Your task to perform on an android device: allow cookies in the chrome app Image 0: 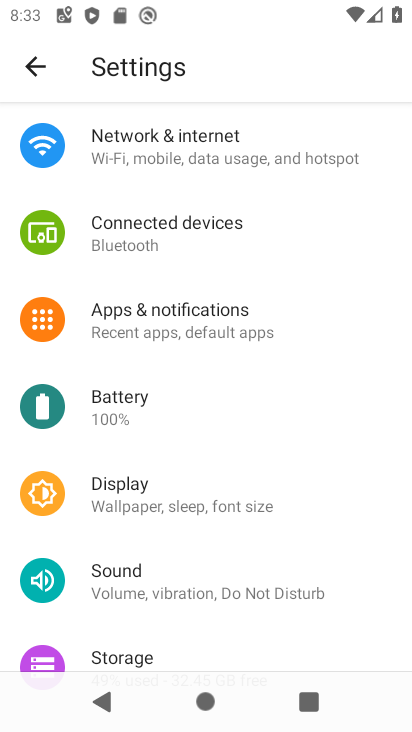
Step 0: press home button
Your task to perform on an android device: allow cookies in the chrome app Image 1: 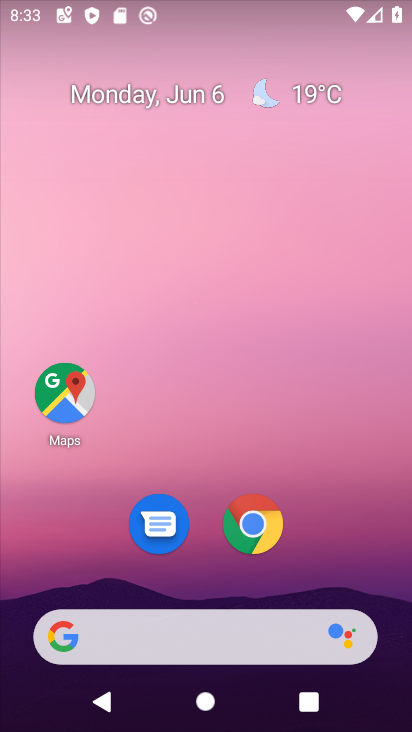
Step 1: click (245, 547)
Your task to perform on an android device: allow cookies in the chrome app Image 2: 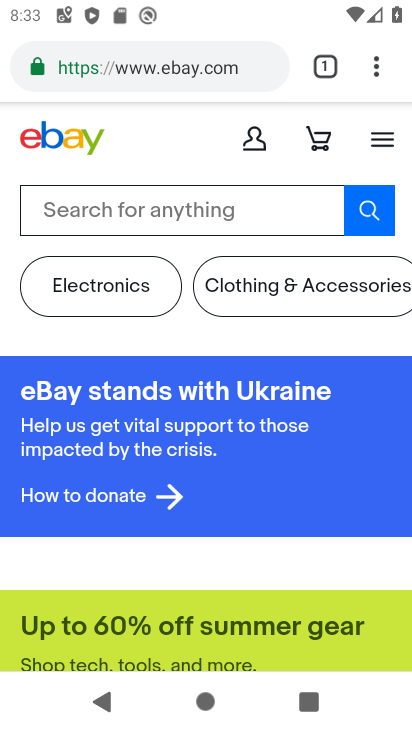
Step 2: click (382, 65)
Your task to perform on an android device: allow cookies in the chrome app Image 3: 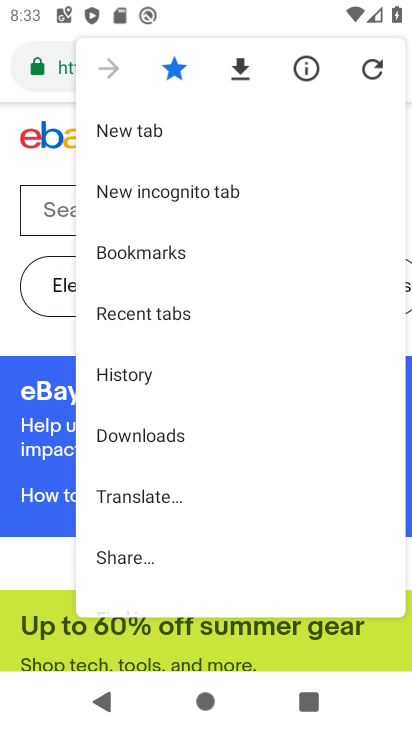
Step 3: drag from (230, 299) to (239, 187)
Your task to perform on an android device: allow cookies in the chrome app Image 4: 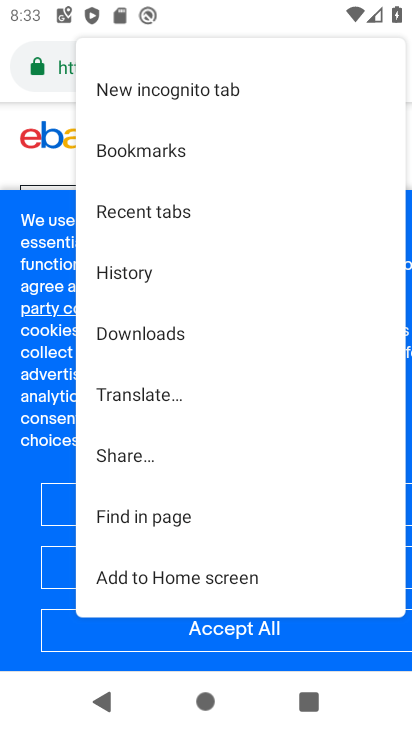
Step 4: drag from (161, 457) to (160, 132)
Your task to perform on an android device: allow cookies in the chrome app Image 5: 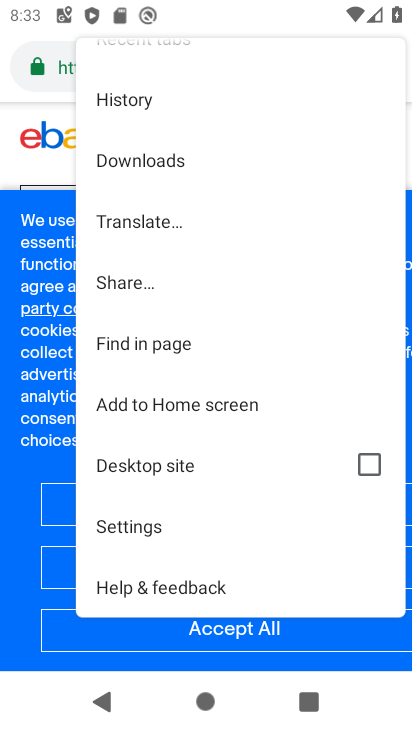
Step 5: click (150, 517)
Your task to perform on an android device: allow cookies in the chrome app Image 6: 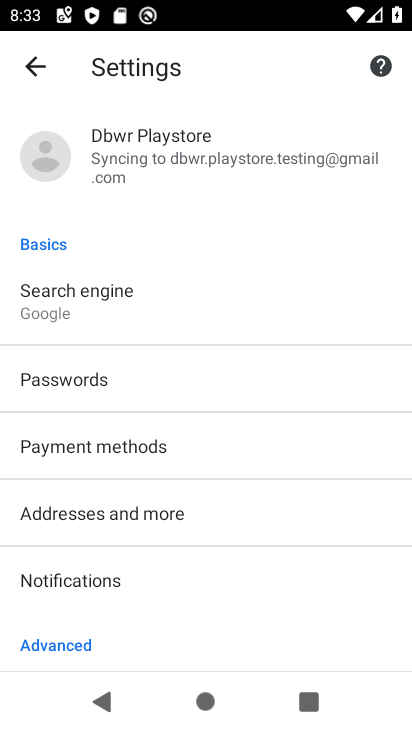
Step 6: drag from (238, 509) to (243, 215)
Your task to perform on an android device: allow cookies in the chrome app Image 7: 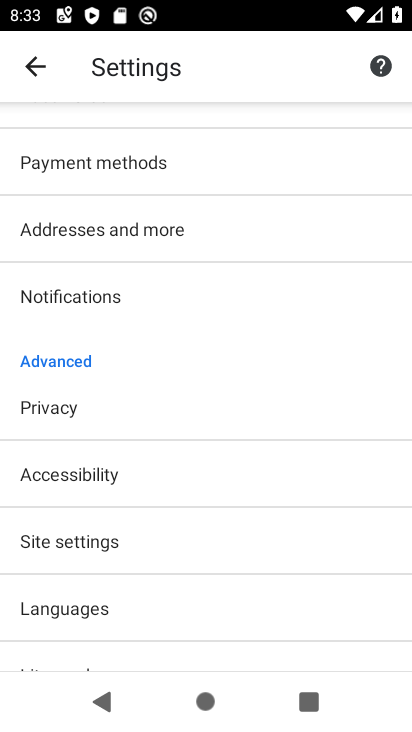
Step 7: click (208, 539)
Your task to perform on an android device: allow cookies in the chrome app Image 8: 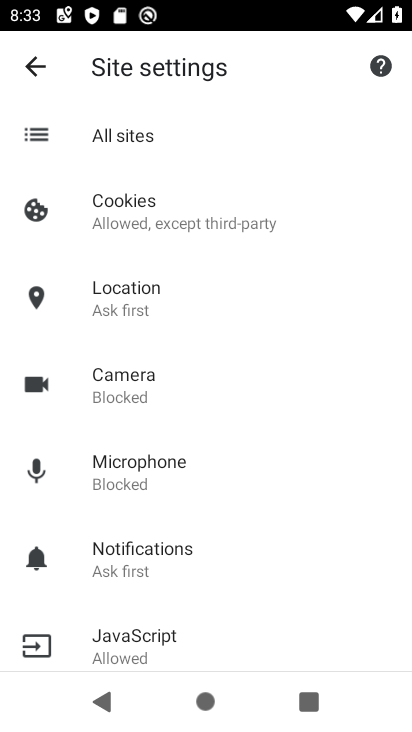
Step 8: task complete